Your task to perform on an android device: Is it going to rain this weekend? Image 0: 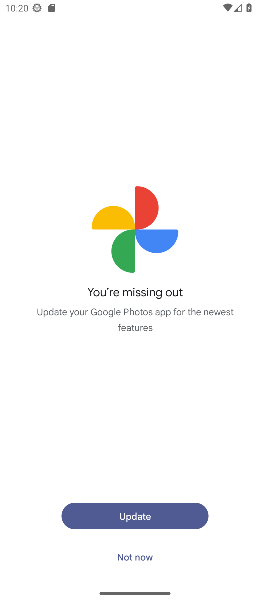
Step 0: press home button
Your task to perform on an android device: Is it going to rain this weekend? Image 1: 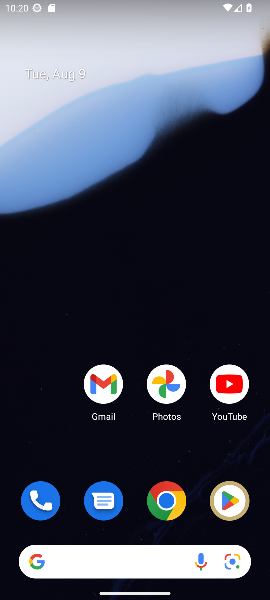
Step 1: click (101, 553)
Your task to perform on an android device: Is it going to rain this weekend? Image 2: 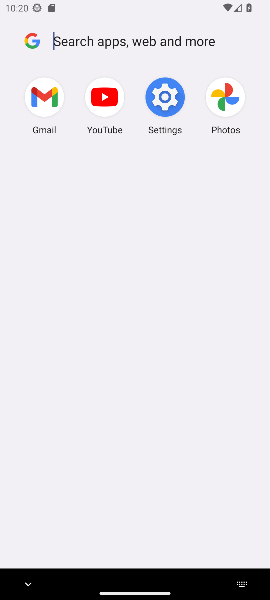
Step 2: type "weather"
Your task to perform on an android device: Is it going to rain this weekend? Image 3: 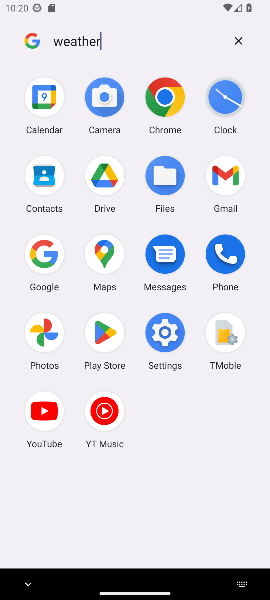
Step 3: click (45, 251)
Your task to perform on an android device: Is it going to rain this weekend? Image 4: 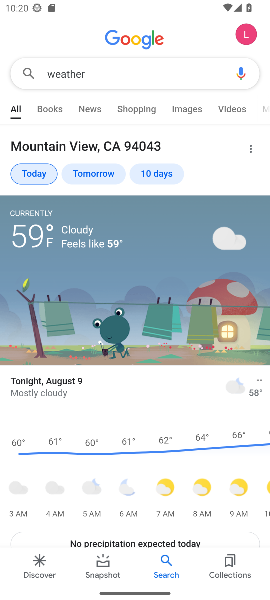
Step 4: click (150, 177)
Your task to perform on an android device: Is it going to rain this weekend? Image 5: 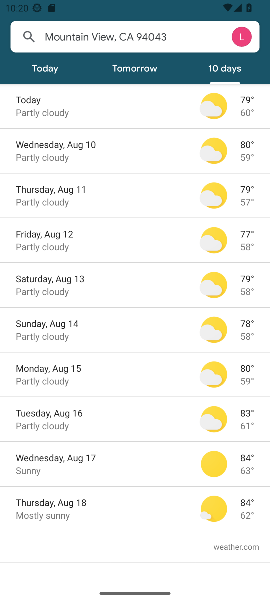
Step 5: task complete